Your task to perform on an android device: turn on improve location accuracy Image 0: 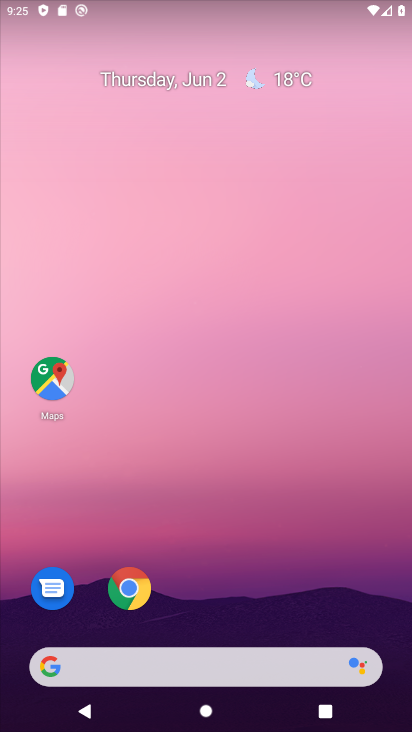
Step 0: drag from (255, 633) to (174, 15)
Your task to perform on an android device: turn on improve location accuracy Image 1: 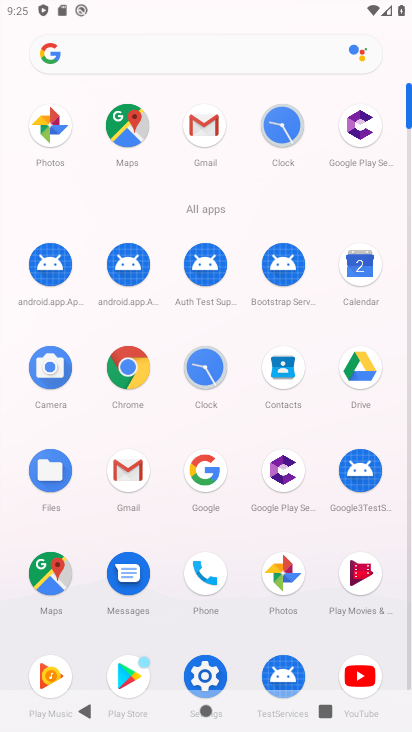
Step 1: click (199, 672)
Your task to perform on an android device: turn on improve location accuracy Image 2: 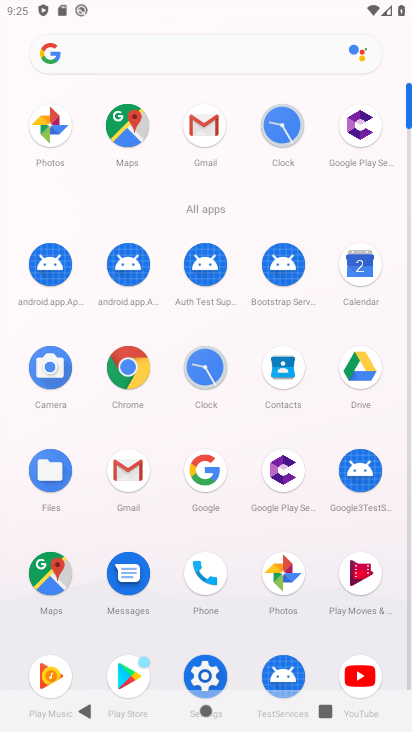
Step 2: click (198, 671)
Your task to perform on an android device: turn on improve location accuracy Image 3: 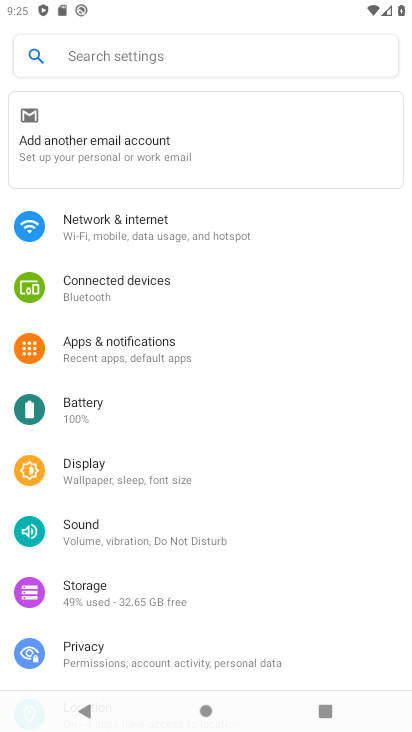
Step 3: drag from (157, 571) to (149, 100)
Your task to perform on an android device: turn on improve location accuracy Image 4: 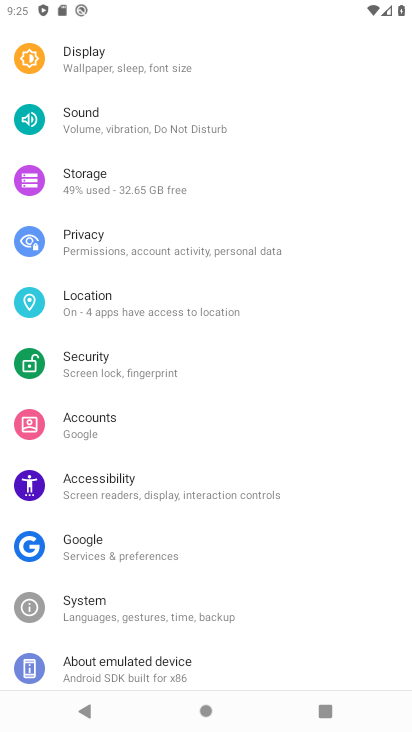
Step 4: drag from (169, 404) to (161, 234)
Your task to perform on an android device: turn on improve location accuracy Image 5: 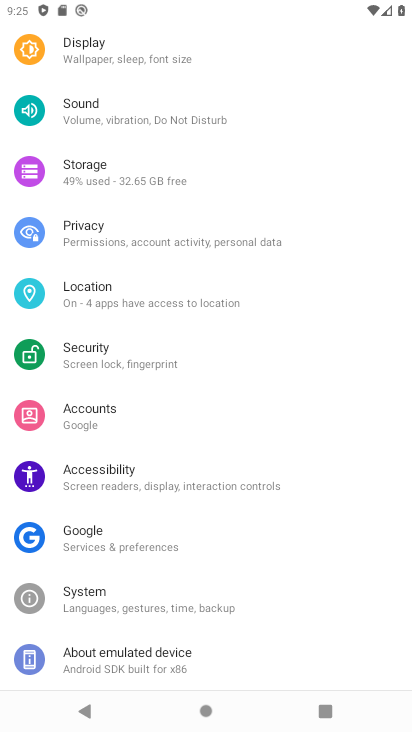
Step 5: drag from (169, 588) to (122, 178)
Your task to perform on an android device: turn on improve location accuracy Image 6: 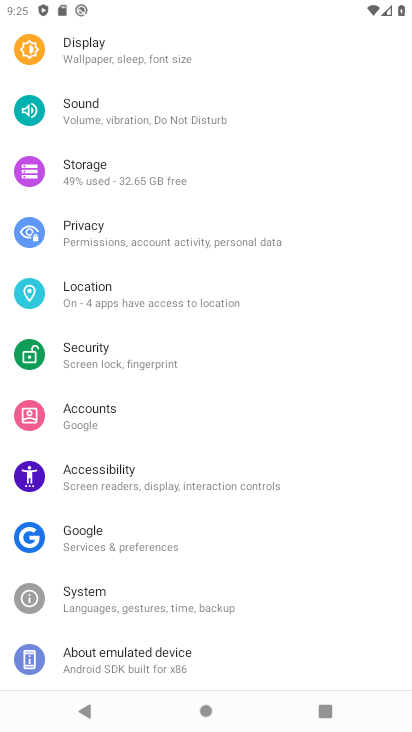
Step 6: click (108, 302)
Your task to perform on an android device: turn on improve location accuracy Image 7: 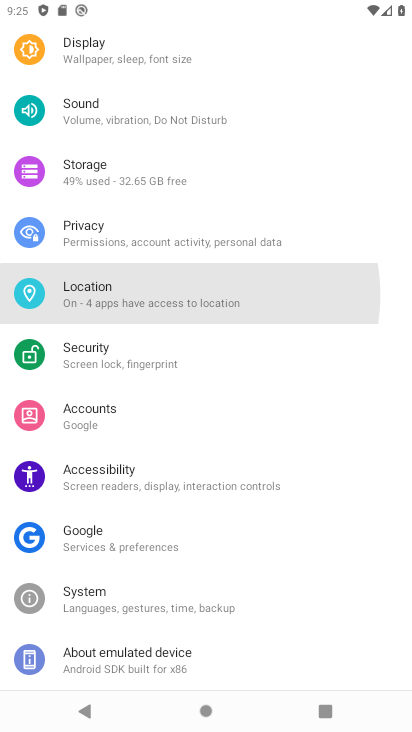
Step 7: click (108, 302)
Your task to perform on an android device: turn on improve location accuracy Image 8: 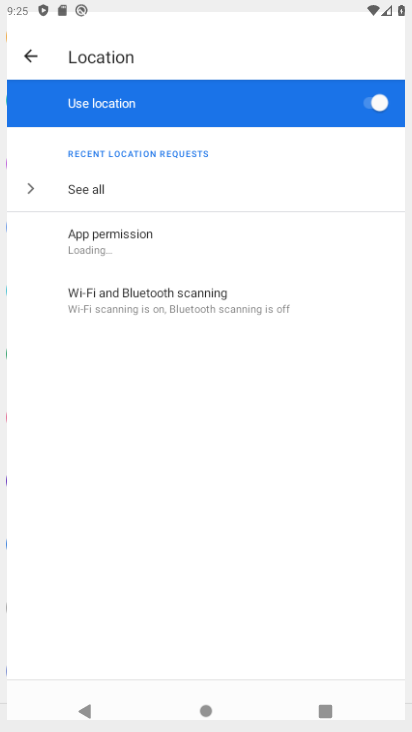
Step 8: click (112, 296)
Your task to perform on an android device: turn on improve location accuracy Image 9: 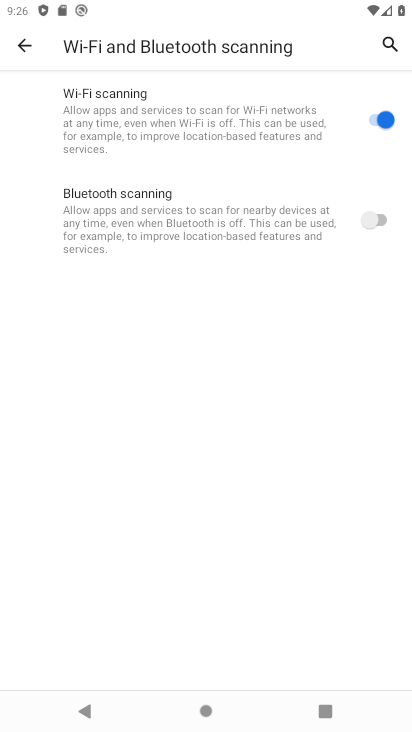
Step 9: click (21, 42)
Your task to perform on an android device: turn on improve location accuracy Image 10: 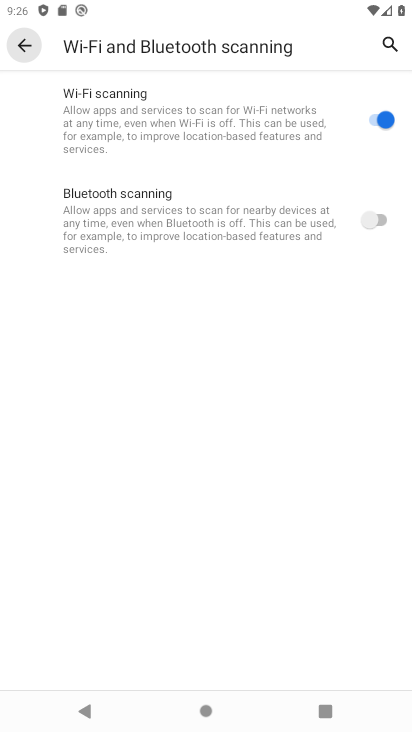
Step 10: click (21, 42)
Your task to perform on an android device: turn on improve location accuracy Image 11: 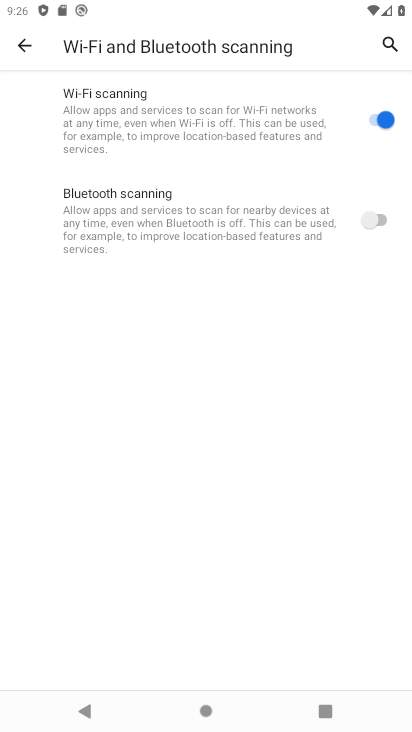
Step 11: click (20, 41)
Your task to perform on an android device: turn on improve location accuracy Image 12: 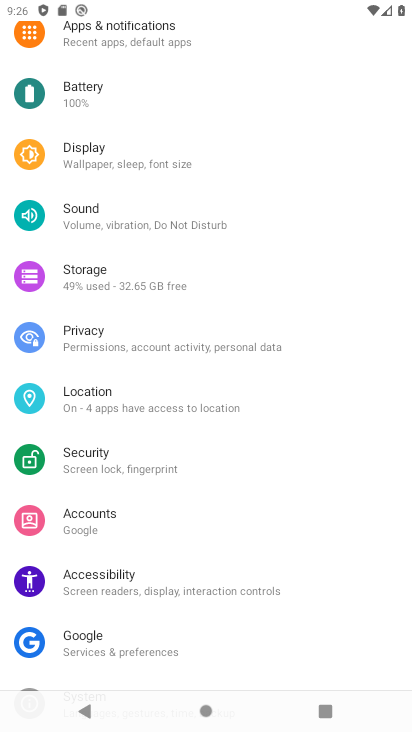
Step 12: click (120, 401)
Your task to perform on an android device: turn on improve location accuracy Image 13: 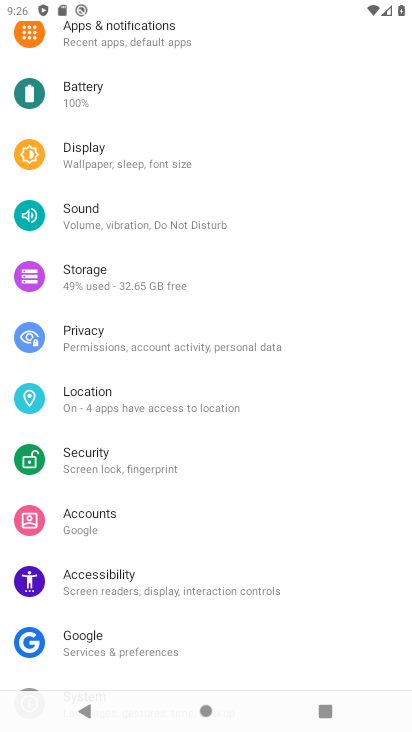
Step 13: click (119, 402)
Your task to perform on an android device: turn on improve location accuracy Image 14: 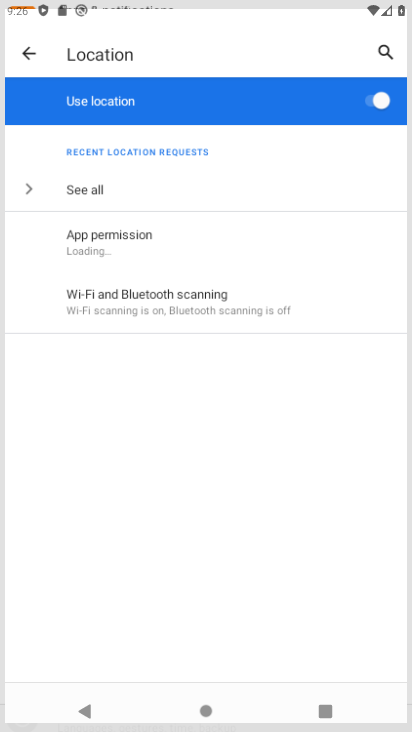
Step 14: click (119, 402)
Your task to perform on an android device: turn on improve location accuracy Image 15: 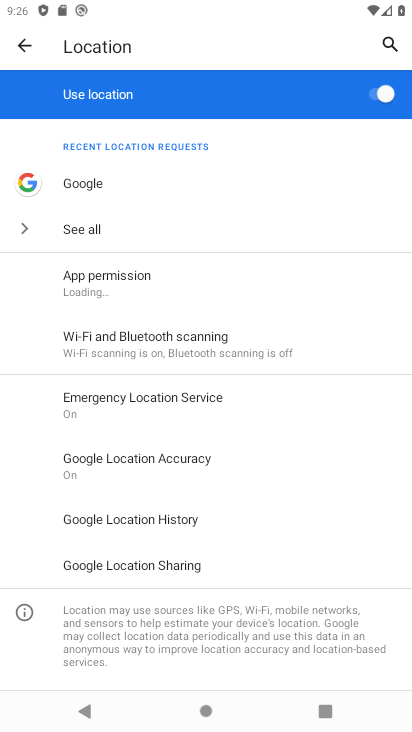
Step 15: click (138, 461)
Your task to perform on an android device: turn on improve location accuracy Image 16: 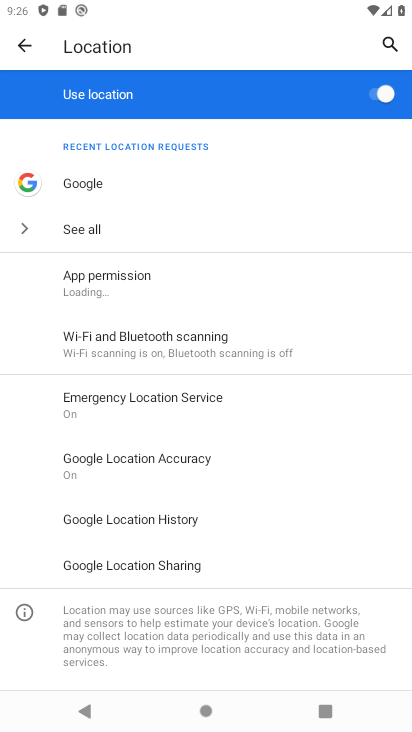
Step 16: click (138, 461)
Your task to perform on an android device: turn on improve location accuracy Image 17: 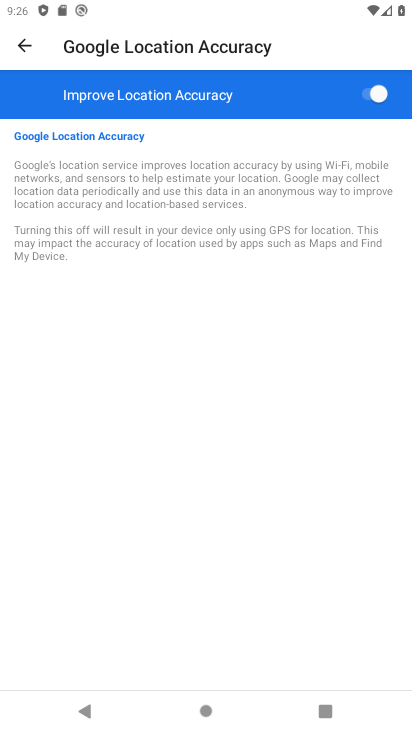
Step 17: task complete